Your task to perform on an android device: turn off improve location accuracy Image 0: 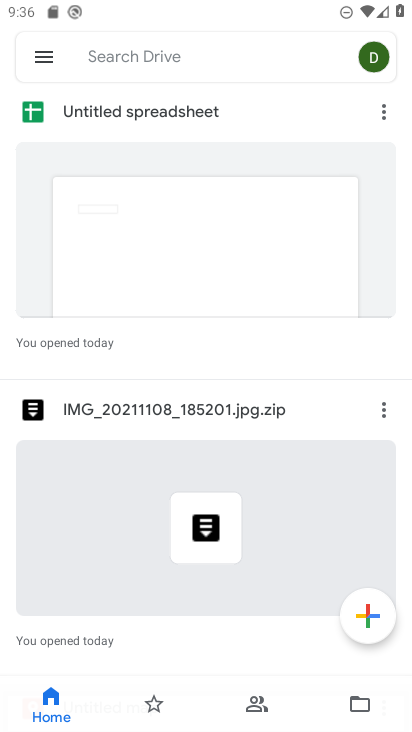
Step 0: press home button
Your task to perform on an android device: turn off improve location accuracy Image 1: 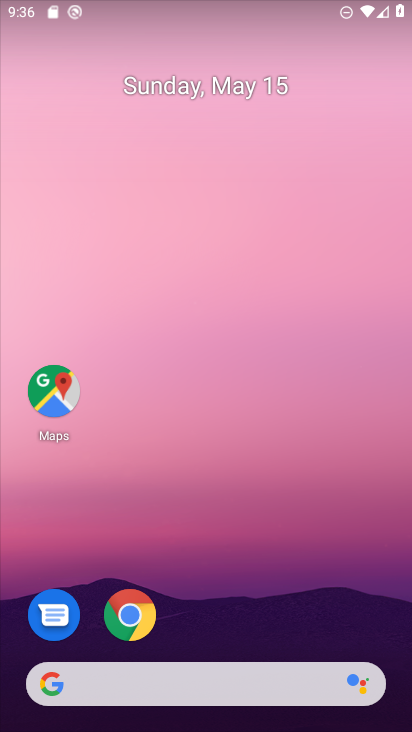
Step 1: drag from (202, 647) to (267, 55)
Your task to perform on an android device: turn off improve location accuracy Image 2: 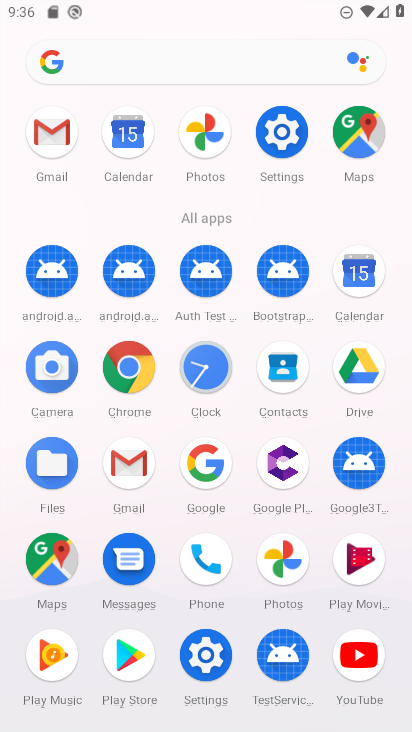
Step 2: drag from (193, 648) to (230, 464)
Your task to perform on an android device: turn off improve location accuracy Image 3: 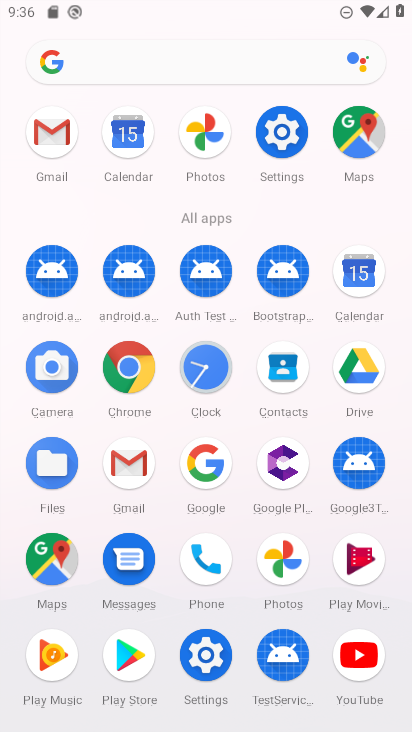
Step 3: click (204, 655)
Your task to perform on an android device: turn off improve location accuracy Image 4: 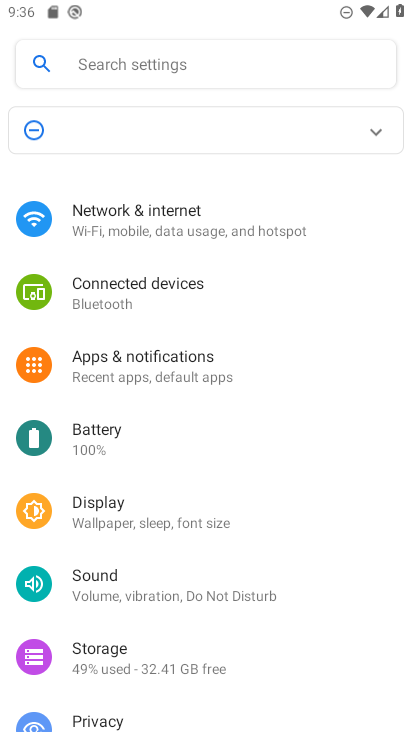
Step 4: drag from (212, 653) to (309, 284)
Your task to perform on an android device: turn off improve location accuracy Image 5: 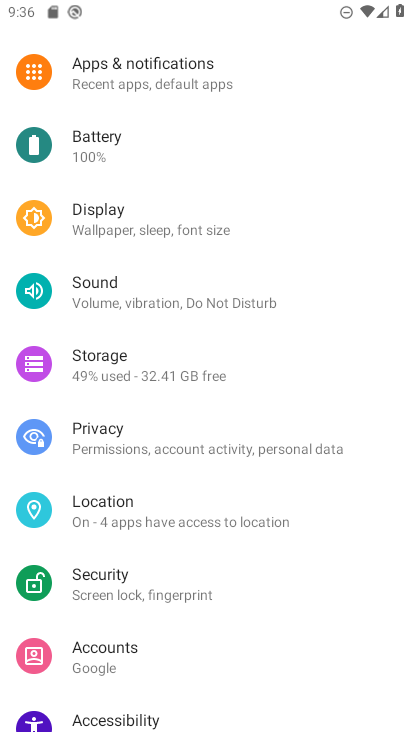
Step 5: click (130, 536)
Your task to perform on an android device: turn off improve location accuracy Image 6: 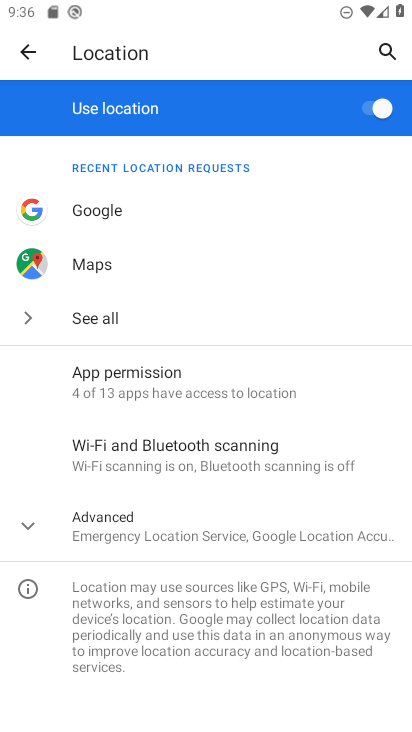
Step 6: click (205, 533)
Your task to perform on an android device: turn off improve location accuracy Image 7: 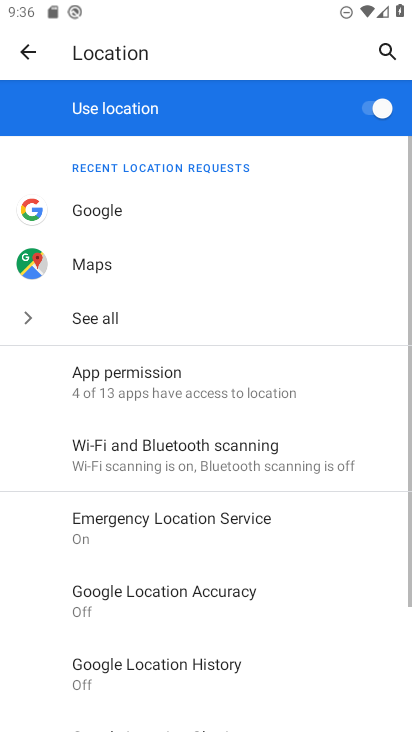
Step 7: drag from (190, 669) to (281, 465)
Your task to perform on an android device: turn off improve location accuracy Image 8: 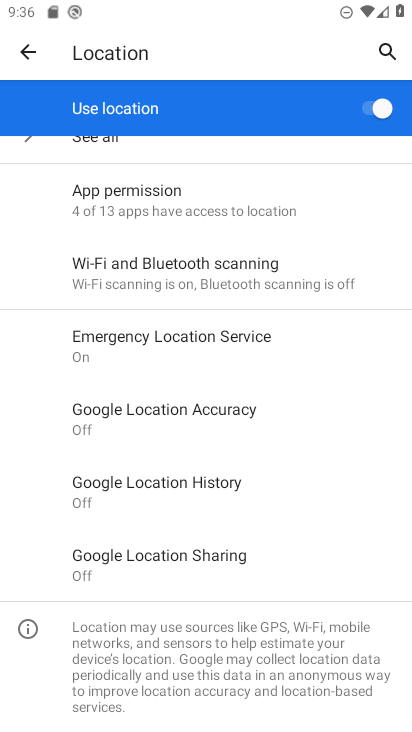
Step 8: click (244, 438)
Your task to perform on an android device: turn off improve location accuracy Image 9: 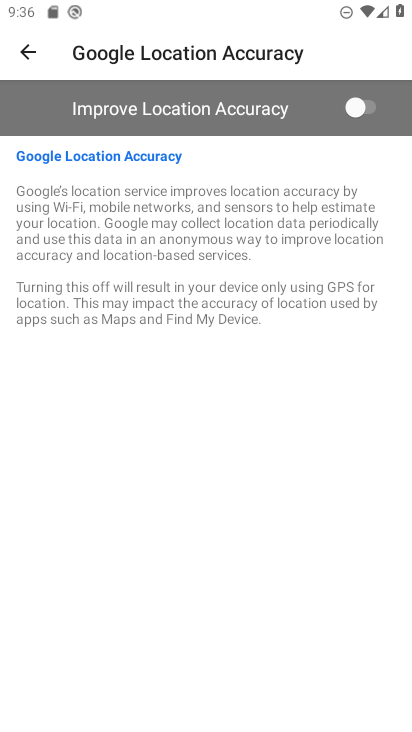
Step 9: task complete